Your task to perform on an android device: Toggle the flashlight Image 0: 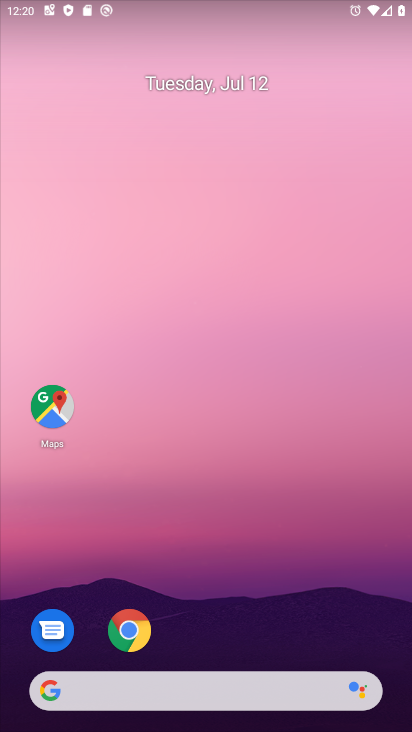
Step 0: drag from (206, 694) to (169, 235)
Your task to perform on an android device: Toggle the flashlight Image 1: 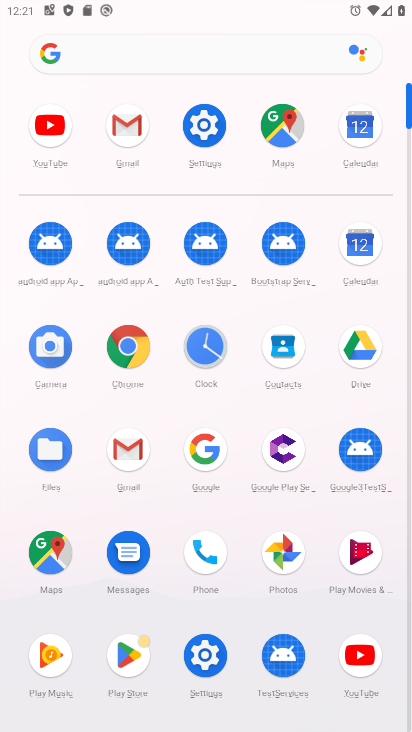
Step 1: click (206, 654)
Your task to perform on an android device: Toggle the flashlight Image 2: 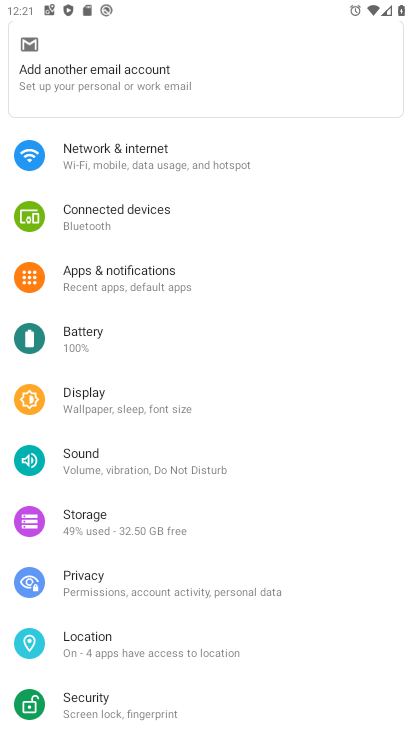
Step 2: drag from (128, 557) to (181, 448)
Your task to perform on an android device: Toggle the flashlight Image 3: 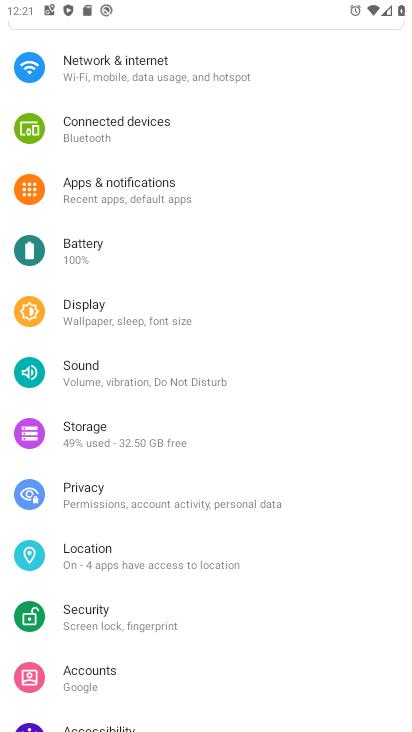
Step 3: drag from (140, 554) to (192, 472)
Your task to perform on an android device: Toggle the flashlight Image 4: 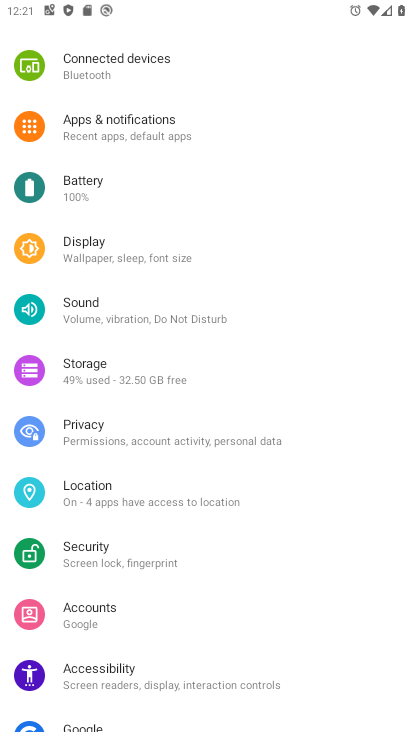
Step 4: drag from (138, 626) to (234, 518)
Your task to perform on an android device: Toggle the flashlight Image 5: 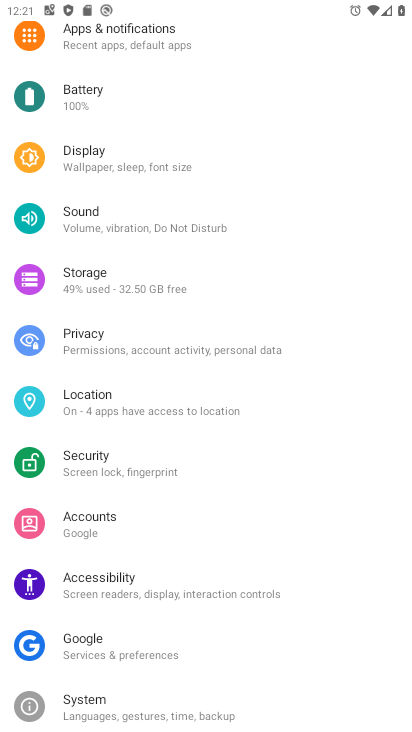
Step 5: drag from (178, 631) to (232, 551)
Your task to perform on an android device: Toggle the flashlight Image 6: 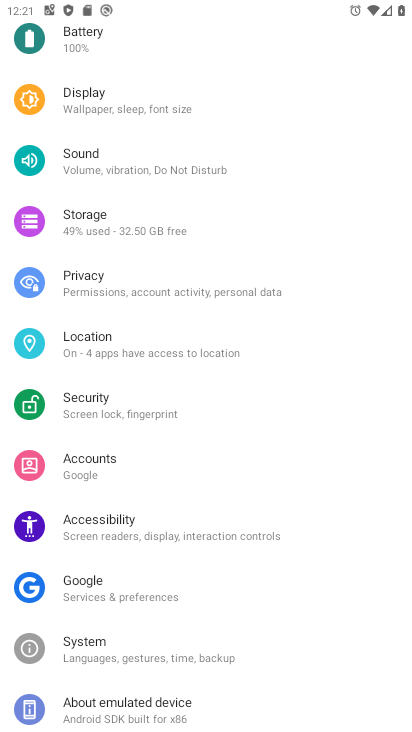
Step 6: drag from (209, 255) to (198, 441)
Your task to perform on an android device: Toggle the flashlight Image 7: 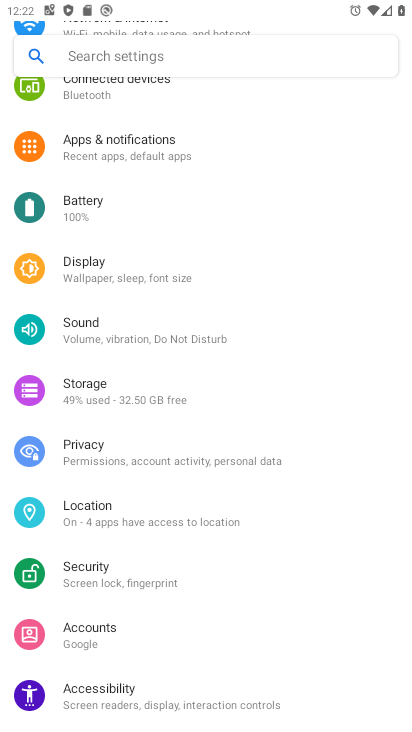
Step 7: drag from (189, 245) to (226, 395)
Your task to perform on an android device: Toggle the flashlight Image 8: 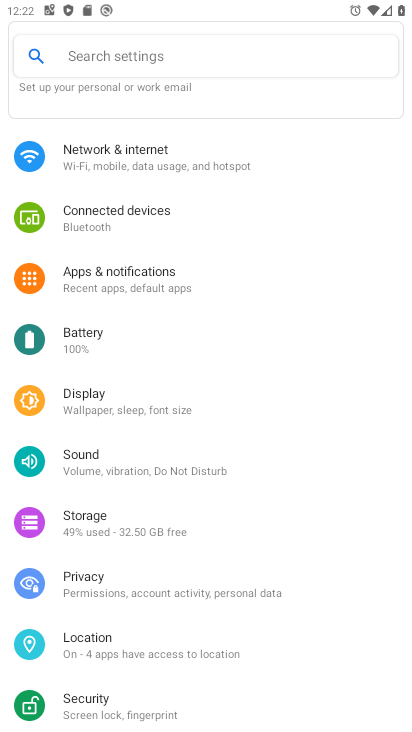
Step 8: click (202, 410)
Your task to perform on an android device: Toggle the flashlight Image 9: 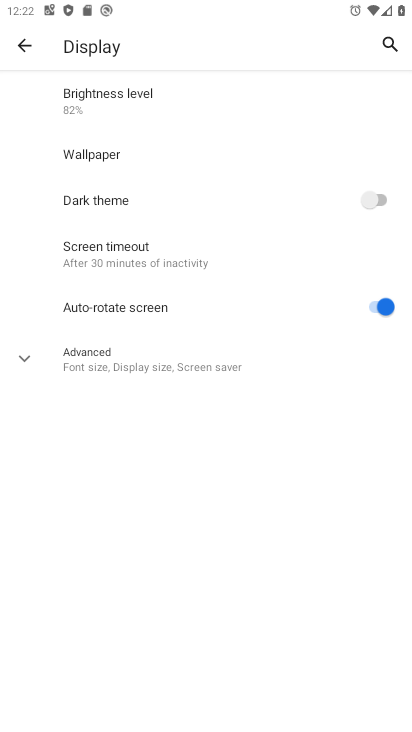
Step 9: click (159, 274)
Your task to perform on an android device: Toggle the flashlight Image 10: 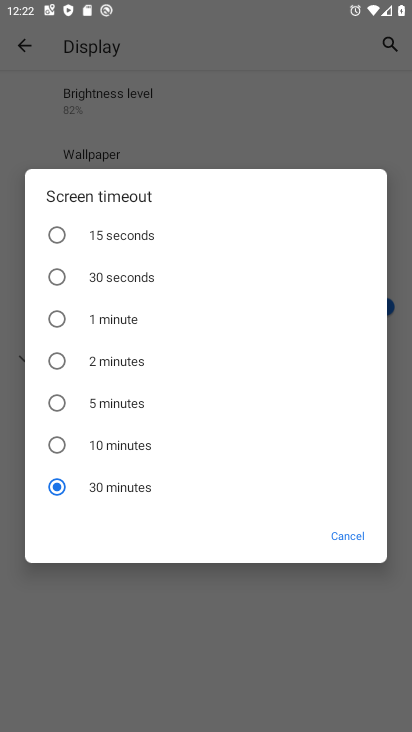
Step 10: click (343, 543)
Your task to perform on an android device: Toggle the flashlight Image 11: 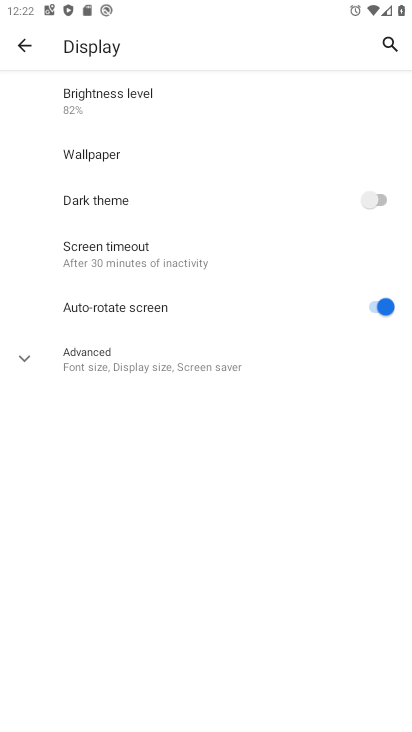
Step 11: click (23, 361)
Your task to perform on an android device: Toggle the flashlight Image 12: 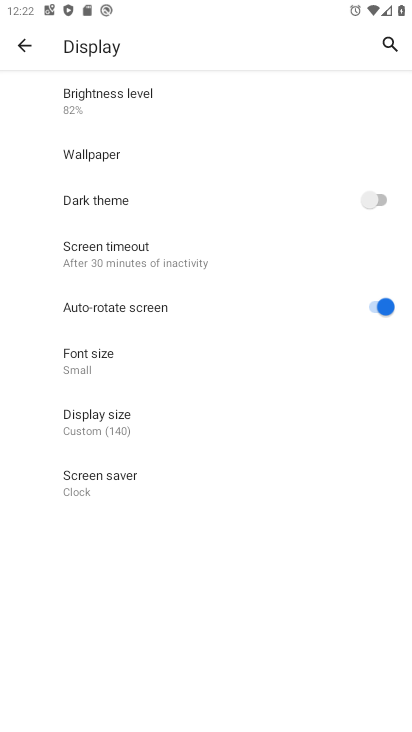
Step 12: task complete